Your task to perform on an android device: create a new album in the google photos Image 0: 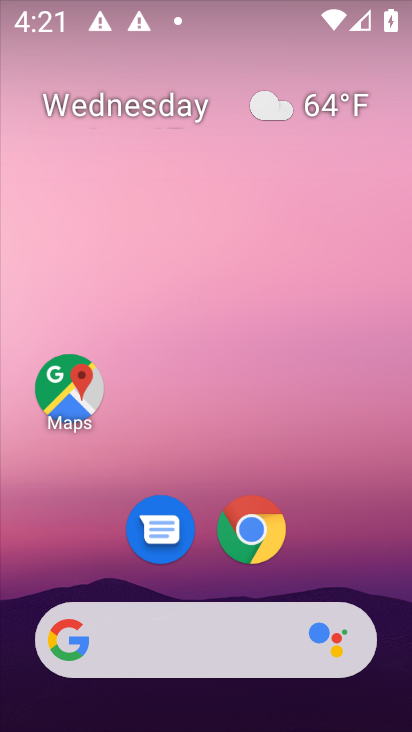
Step 0: drag from (214, 603) to (239, 253)
Your task to perform on an android device: create a new album in the google photos Image 1: 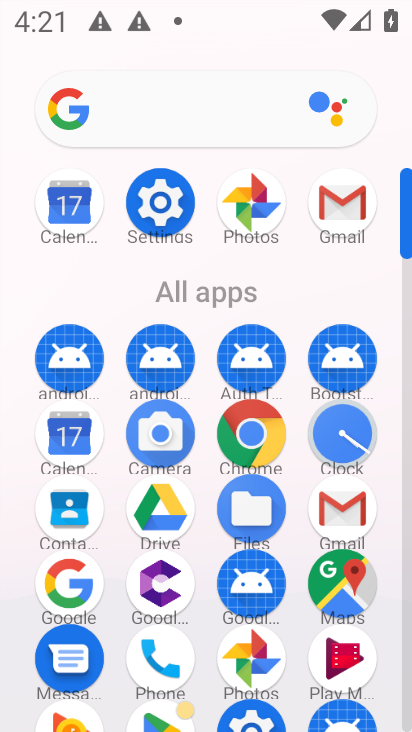
Step 1: click (247, 661)
Your task to perform on an android device: create a new album in the google photos Image 2: 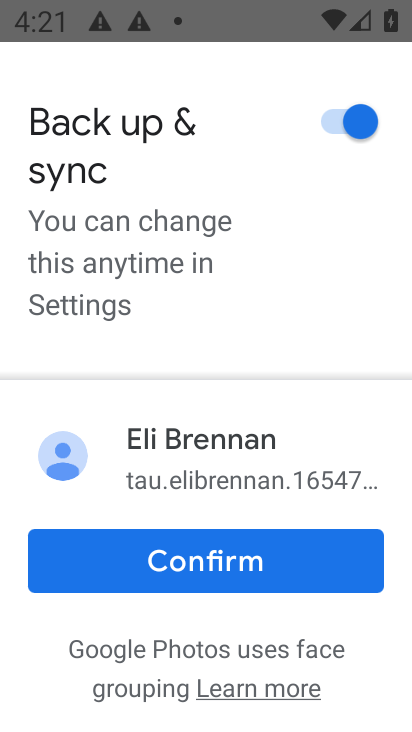
Step 2: click (183, 563)
Your task to perform on an android device: create a new album in the google photos Image 3: 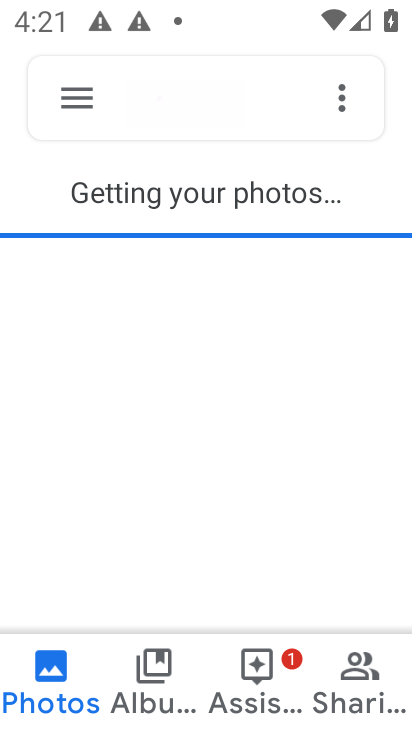
Step 3: click (141, 664)
Your task to perform on an android device: create a new album in the google photos Image 4: 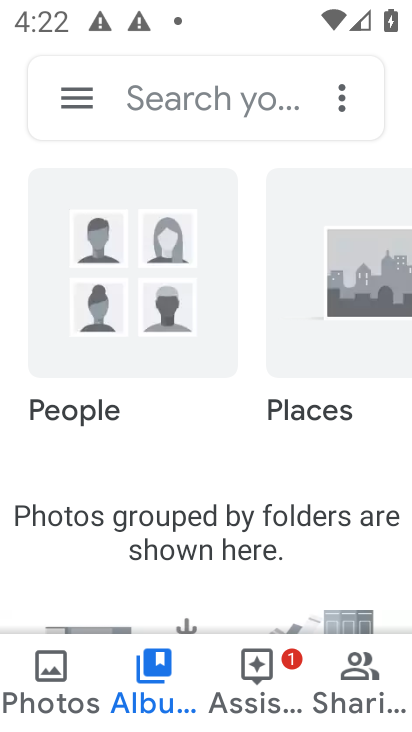
Step 4: task complete